Your task to perform on an android device: change timer sound Image 0: 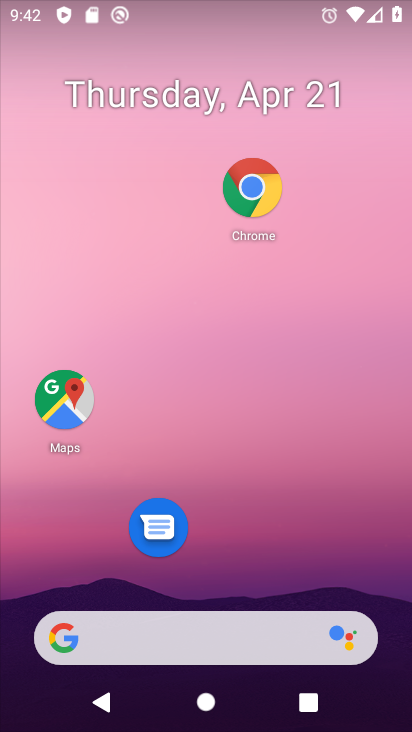
Step 0: drag from (253, 626) to (361, 107)
Your task to perform on an android device: change timer sound Image 1: 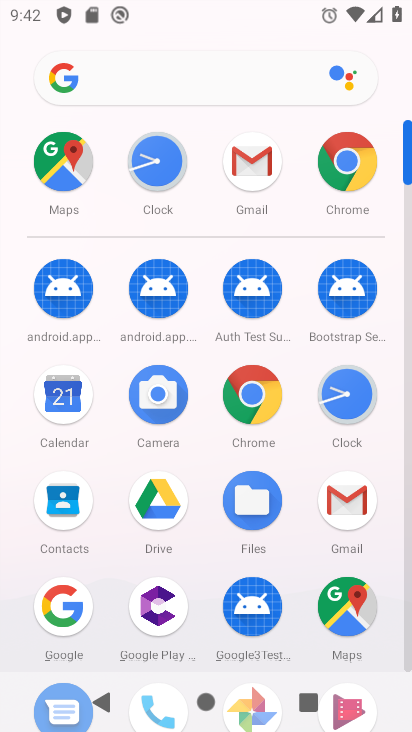
Step 1: click (158, 187)
Your task to perform on an android device: change timer sound Image 2: 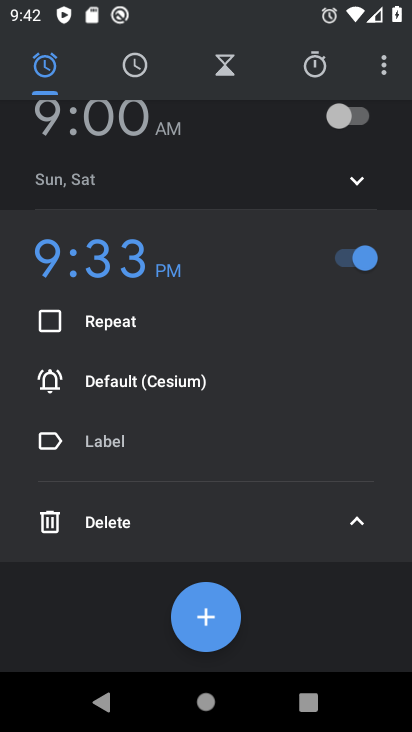
Step 2: click (237, 71)
Your task to perform on an android device: change timer sound Image 3: 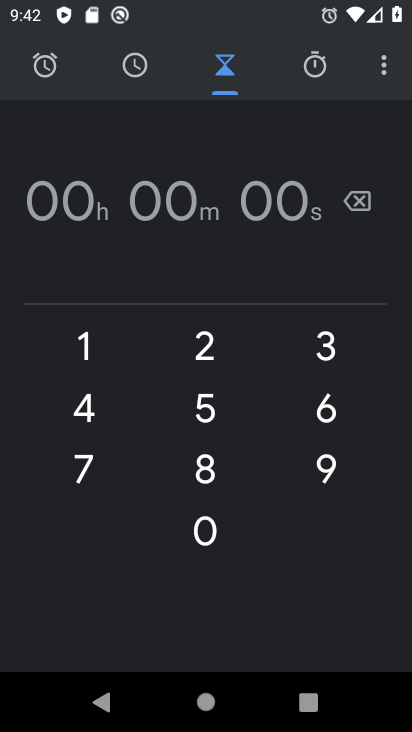
Step 3: click (385, 80)
Your task to perform on an android device: change timer sound Image 4: 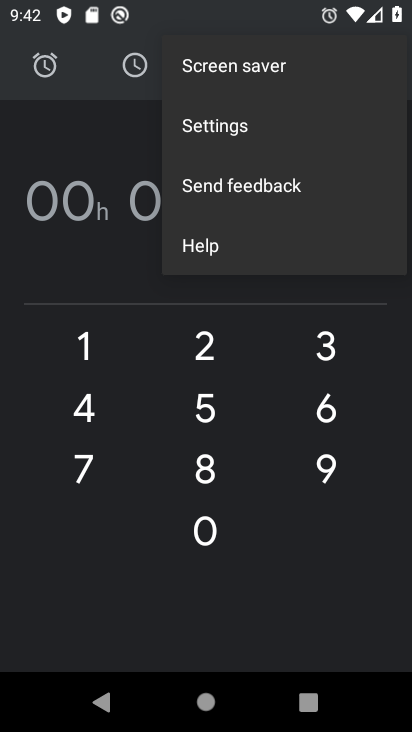
Step 4: click (267, 136)
Your task to perform on an android device: change timer sound Image 5: 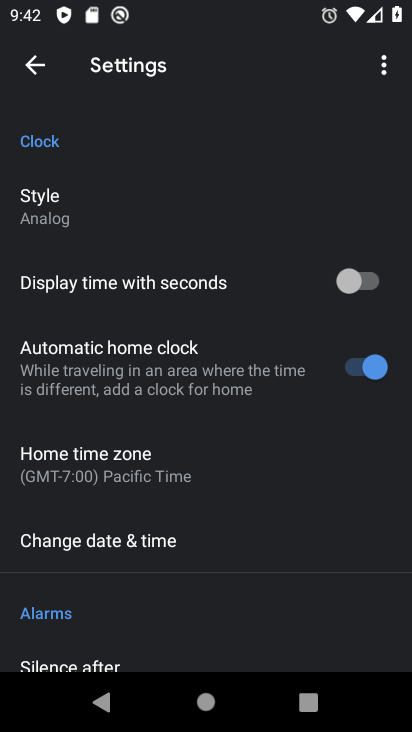
Step 5: drag from (227, 593) to (255, 364)
Your task to perform on an android device: change timer sound Image 6: 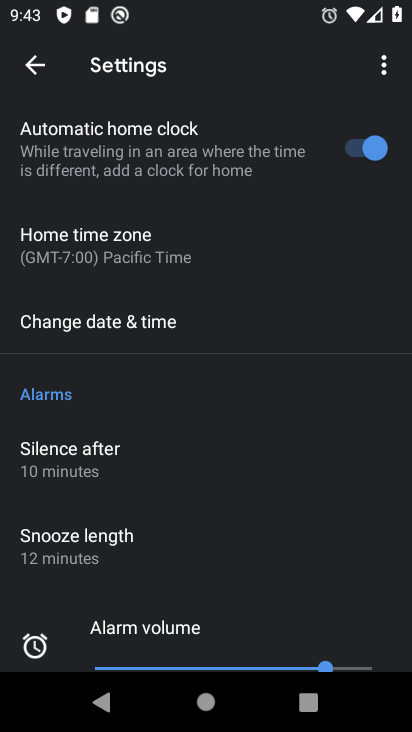
Step 6: drag from (242, 450) to (298, 232)
Your task to perform on an android device: change timer sound Image 7: 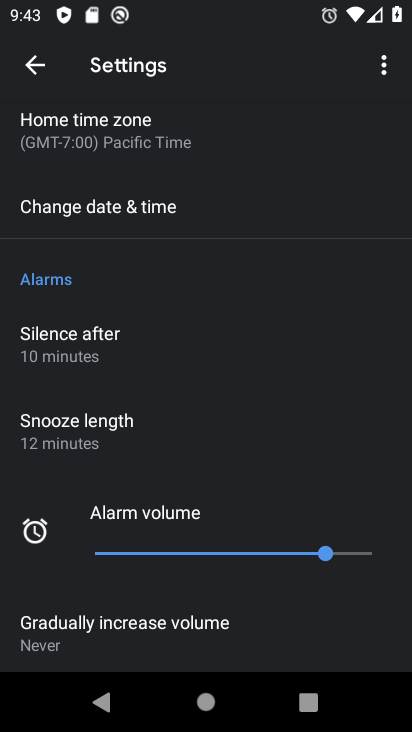
Step 7: drag from (217, 496) to (267, 227)
Your task to perform on an android device: change timer sound Image 8: 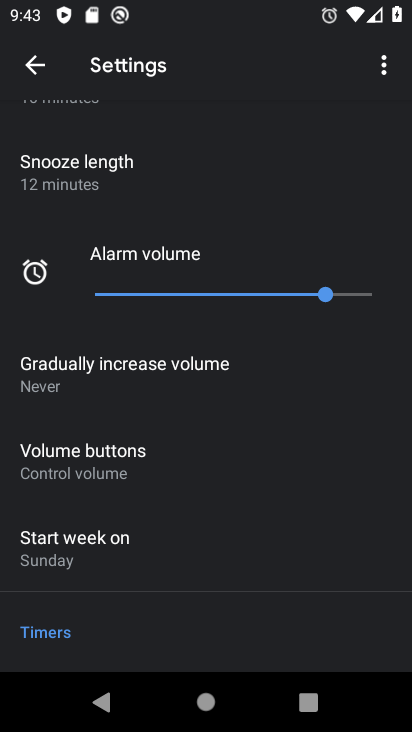
Step 8: drag from (194, 599) to (262, 312)
Your task to perform on an android device: change timer sound Image 9: 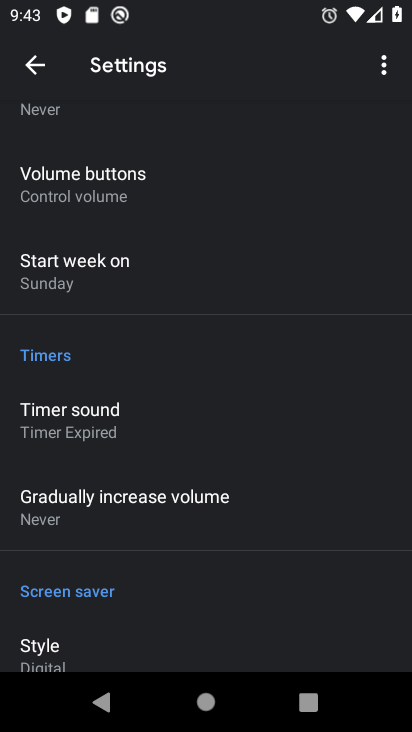
Step 9: click (198, 447)
Your task to perform on an android device: change timer sound Image 10: 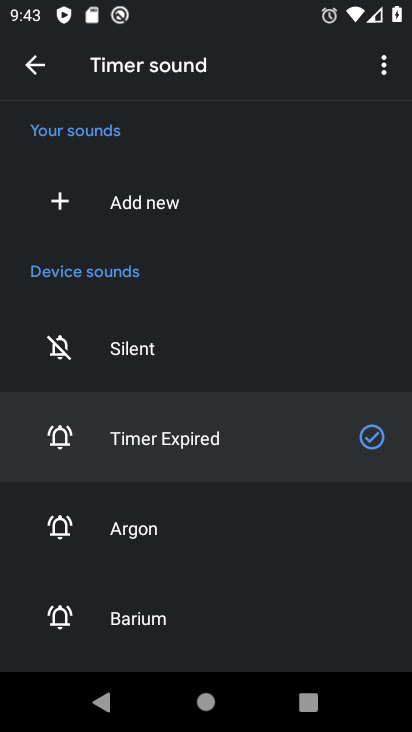
Step 10: click (214, 541)
Your task to perform on an android device: change timer sound Image 11: 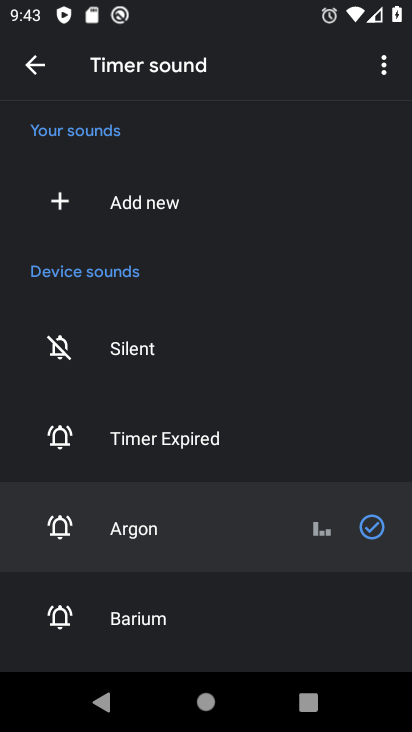
Step 11: task complete